Your task to perform on an android device: open app "The Home Depot" (install if not already installed) and go to login screen Image 0: 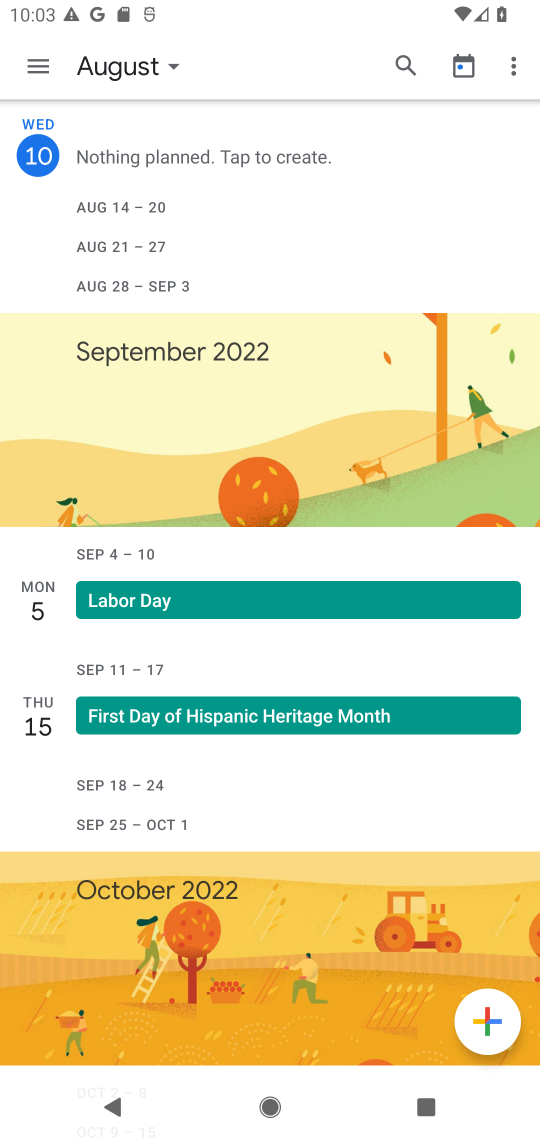
Step 0: press home button
Your task to perform on an android device: open app "The Home Depot" (install if not already installed) and go to login screen Image 1: 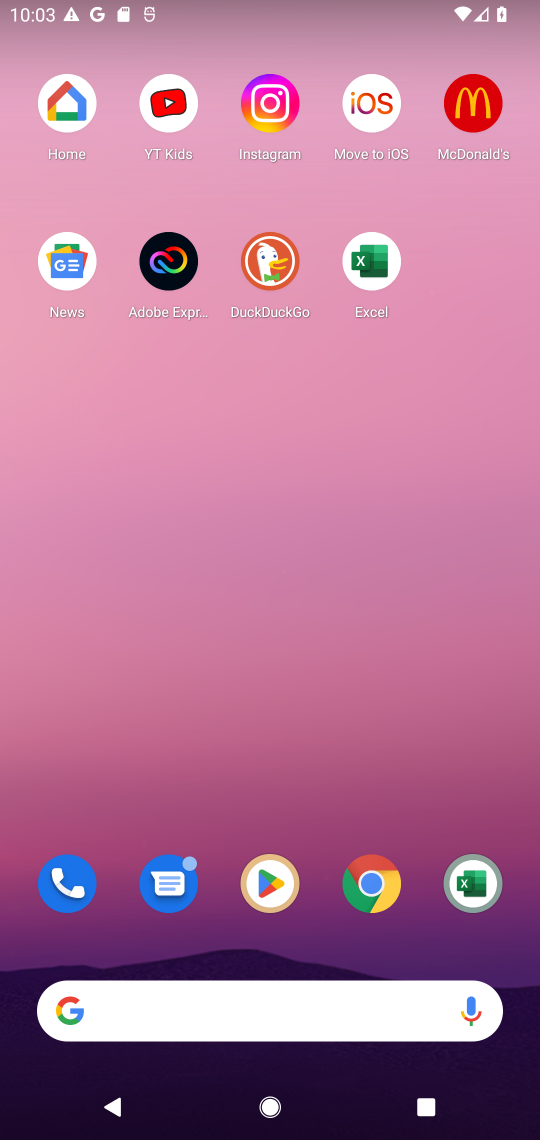
Step 1: drag from (396, 778) to (442, 65)
Your task to perform on an android device: open app "The Home Depot" (install if not already installed) and go to login screen Image 2: 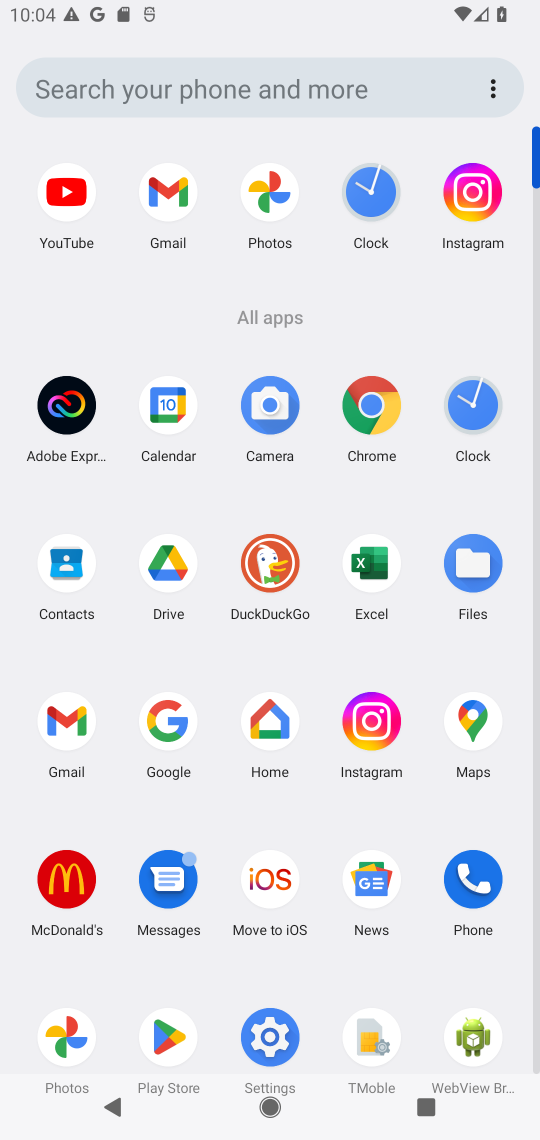
Step 2: click (163, 1025)
Your task to perform on an android device: open app "The Home Depot" (install if not already installed) and go to login screen Image 3: 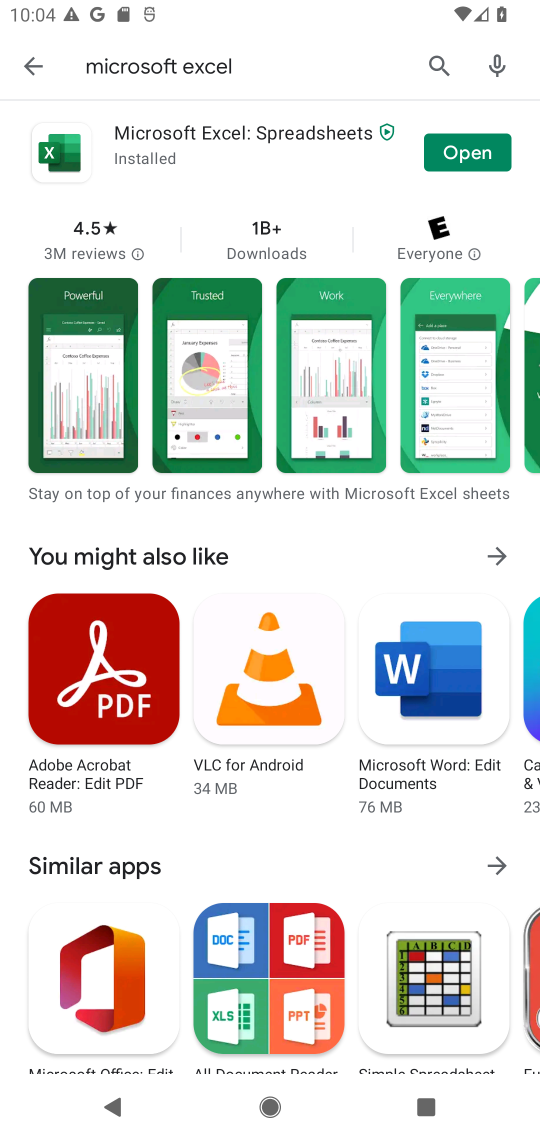
Step 3: click (437, 73)
Your task to perform on an android device: open app "The Home Depot" (install if not already installed) and go to login screen Image 4: 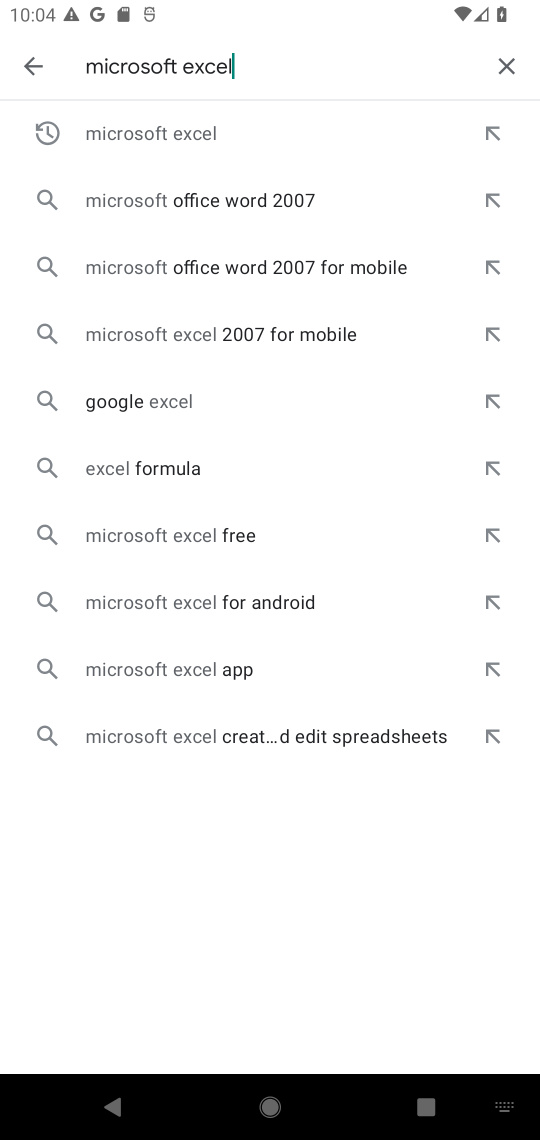
Step 4: click (507, 75)
Your task to perform on an android device: open app "The Home Depot" (install if not already installed) and go to login screen Image 5: 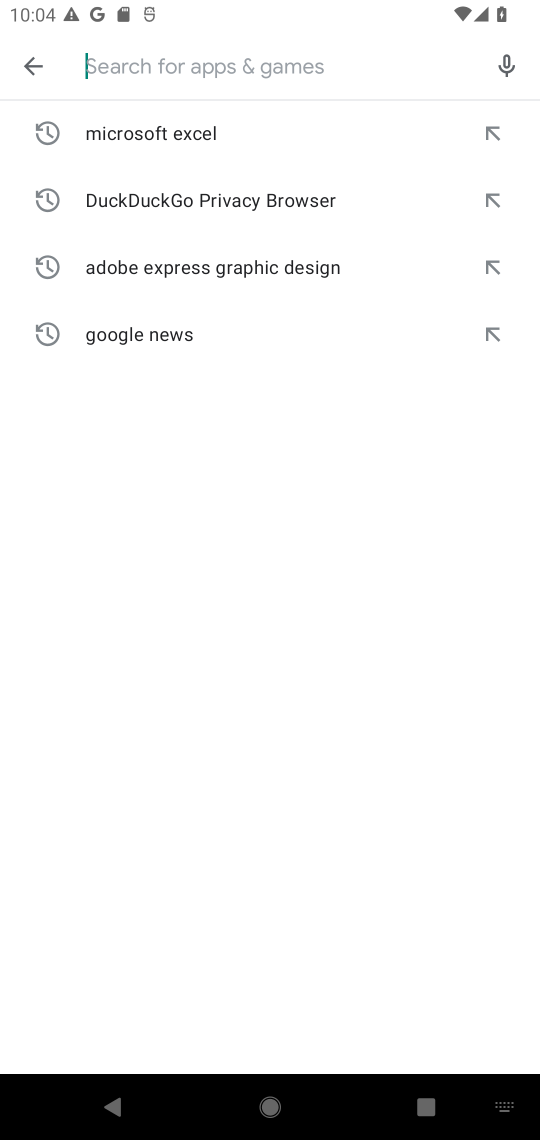
Step 5: type "The Home Depot"
Your task to perform on an android device: open app "The Home Depot" (install if not already installed) and go to login screen Image 6: 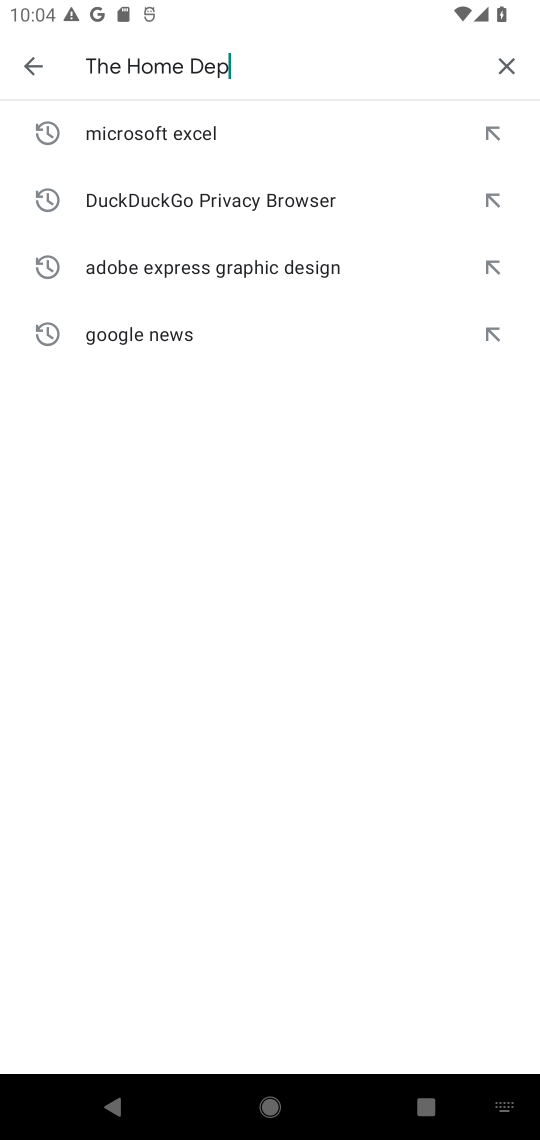
Step 6: press enter
Your task to perform on an android device: open app "The Home Depot" (install if not already installed) and go to login screen Image 7: 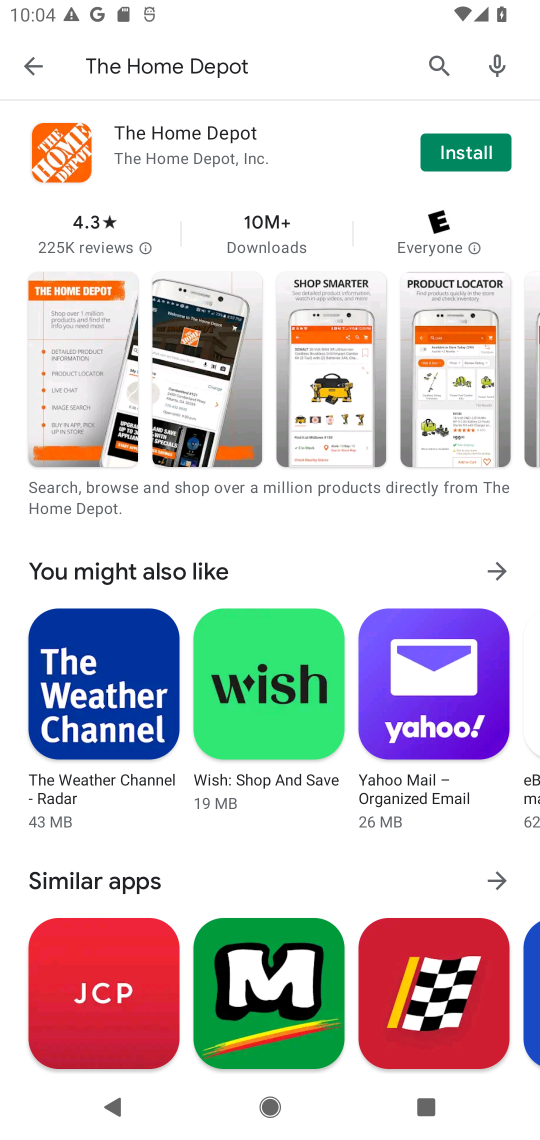
Step 7: click (472, 149)
Your task to perform on an android device: open app "The Home Depot" (install if not already installed) and go to login screen Image 8: 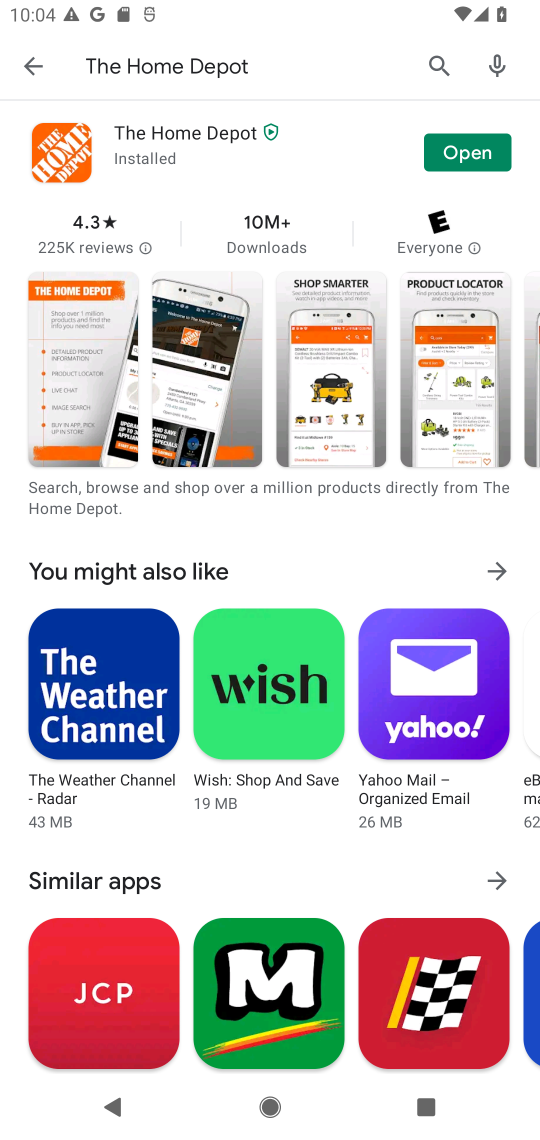
Step 8: click (475, 161)
Your task to perform on an android device: open app "The Home Depot" (install if not already installed) and go to login screen Image 9: 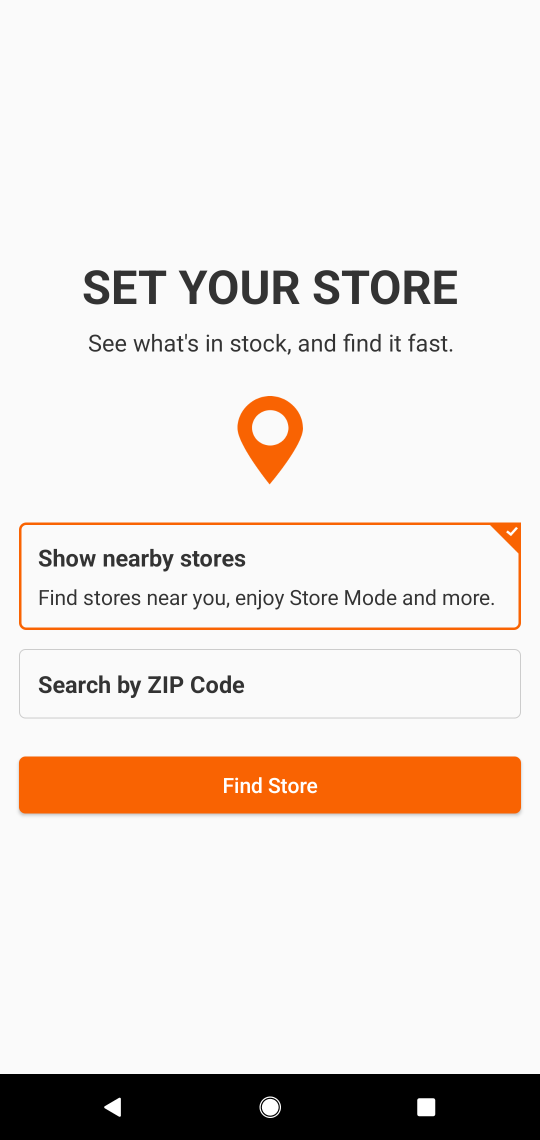
Step 9: task complete